Your task to perform on an android device: change notifications settings Image 0: 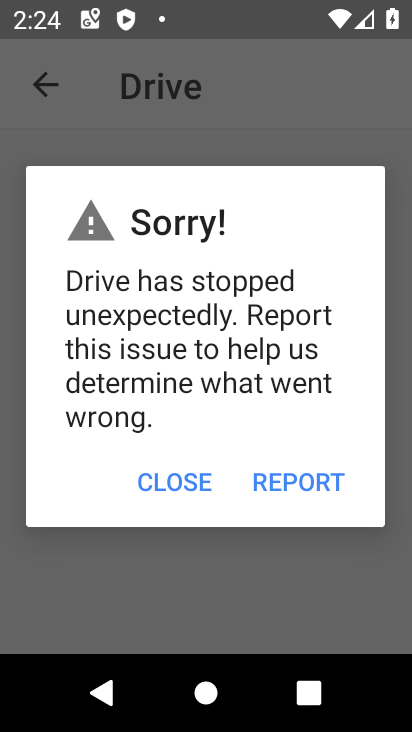
Step 0: press back button
Your task to perform on an android device: change notifications settings Image 1: 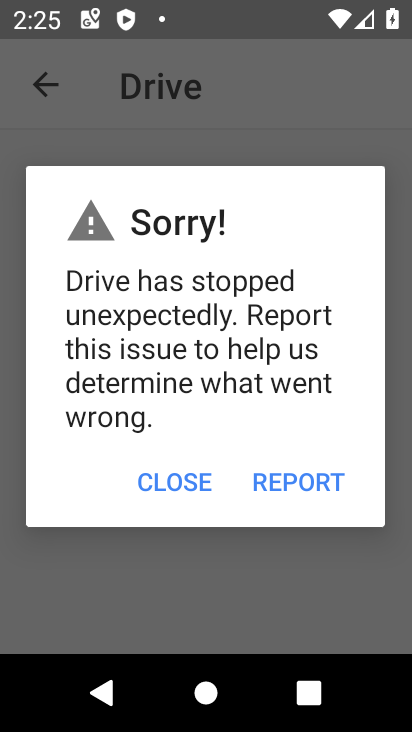
Step 1: press back button
Your task to perform on an android device: change notifications settings Image 2: 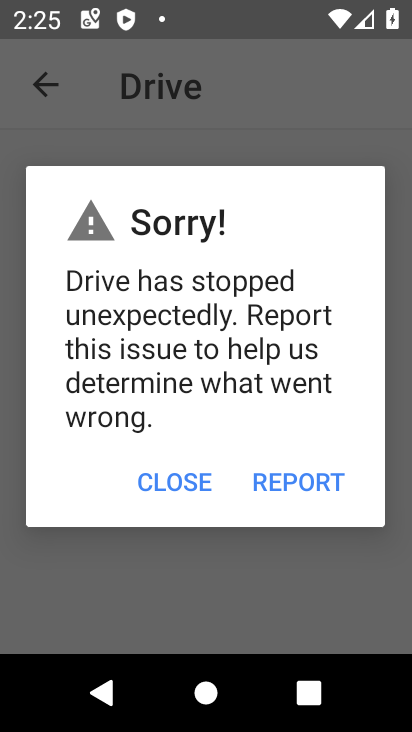
Step 2: press back button
Your task to perform on an android device: change notifications settings Image 3: 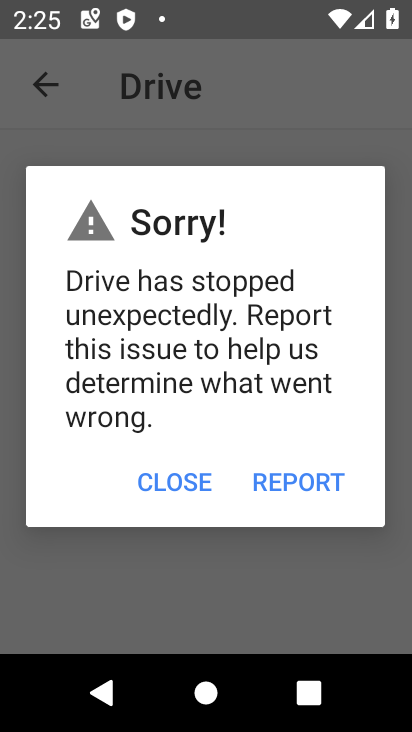
Step 3: press home button
Your task to perform on an android device: change notifications settings Image 4: 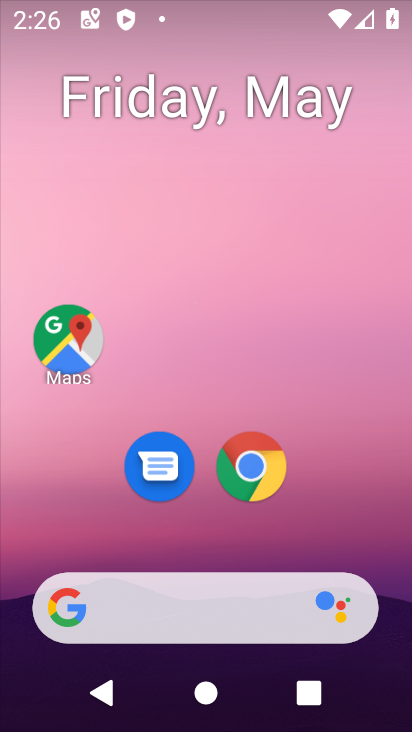
Step 4: drag from (159, 521) to (283, 46)
Your task to perform on an android device: change notifications settings Image 5: 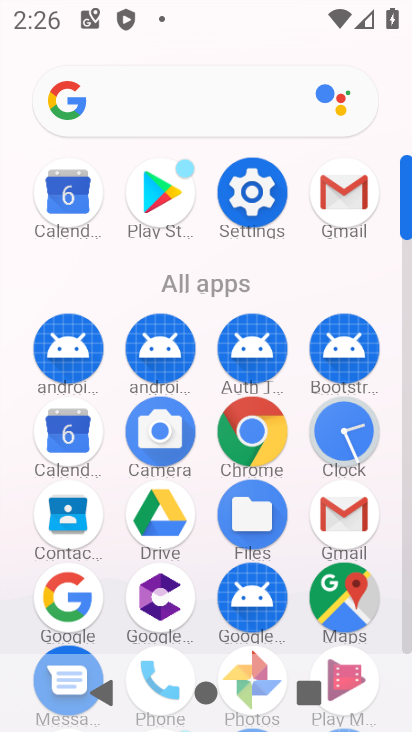
Step 5: click (251, 208)
Your task to perform on an android device: change notifications settings Image 6: 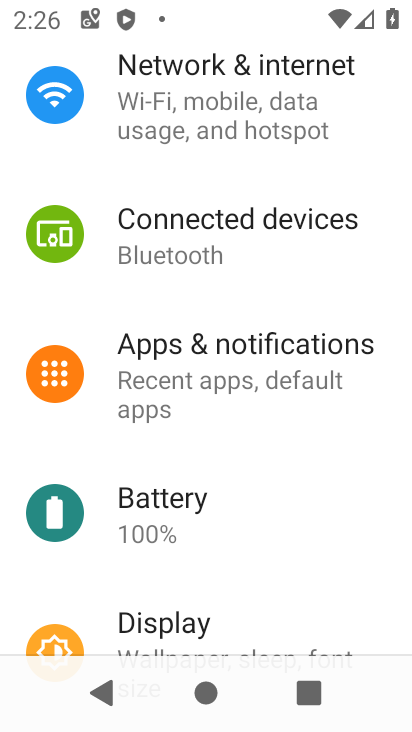
Step 6: click (231, 373)
Your task to perform on an android device: change notifications settings Image 7: 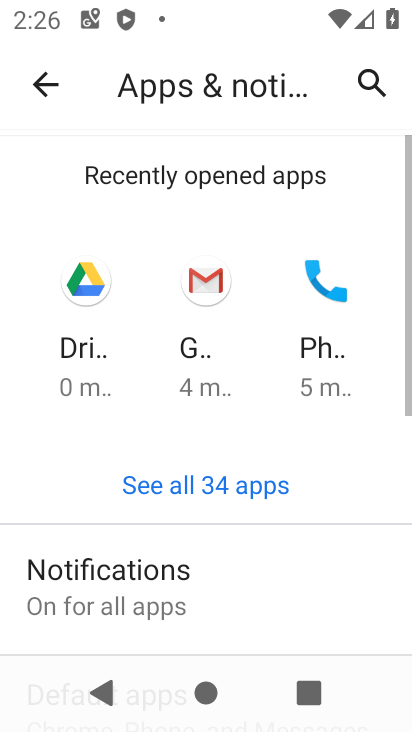
Step 7: task complete